Your task to perform on an android device: Search for "usb-c to usb-b" on bestbuy.com, select the first entry, add it to the cart, then select checkout. Image 0: 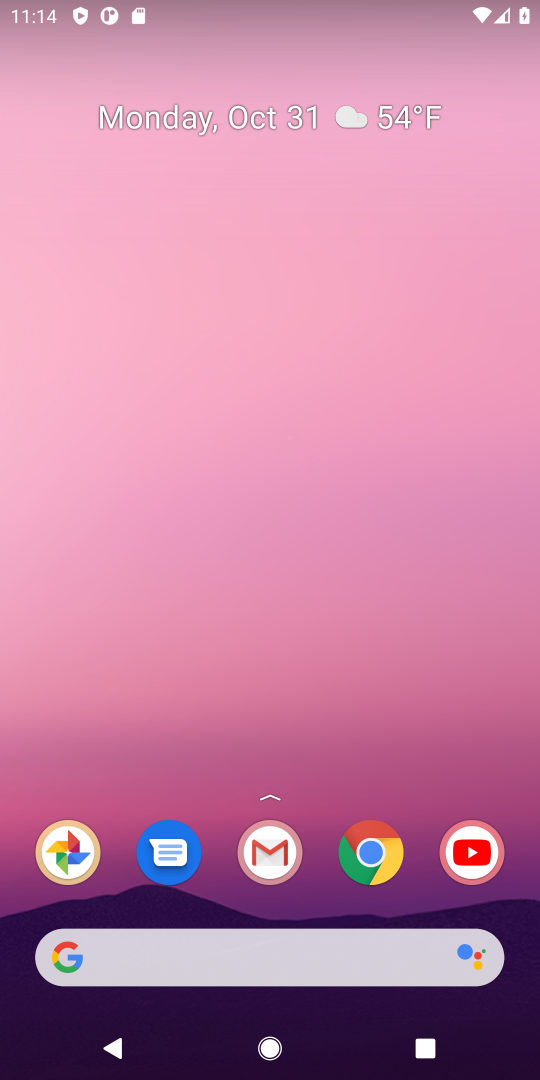
Step 0: click (375, 862)
Your task to perform on an android device: Search for "usb-c to usb-b" on bestbuy.com, select the first entry, add it to the cart, then select checkout. Image 1: 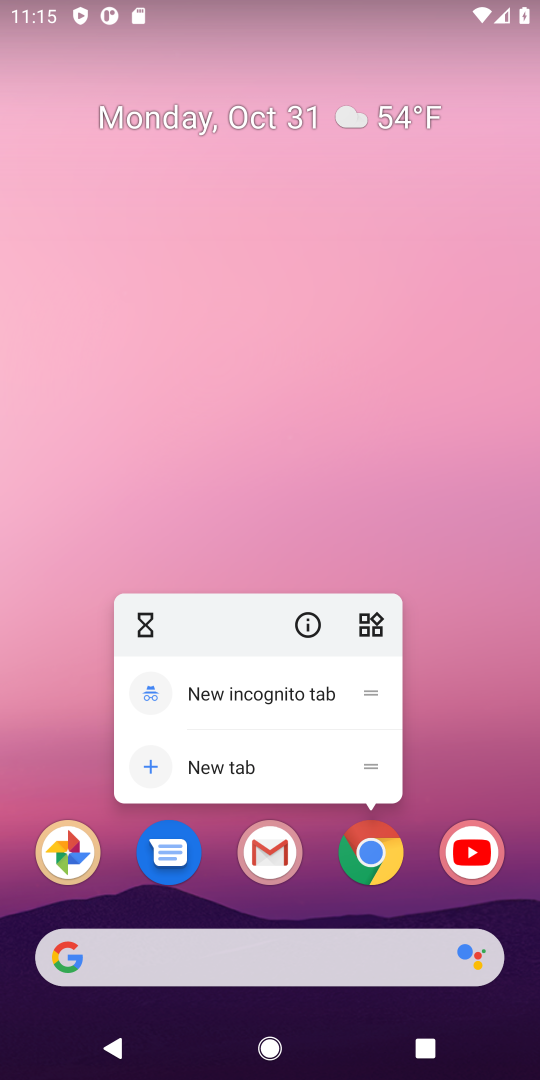
Step 1: click (367, 859)
Your task to perform on an android device: Search for "usb-c to usb-b" on bestbuy.com, select the first entry, add it to the cart, then select checkout. Image 2: 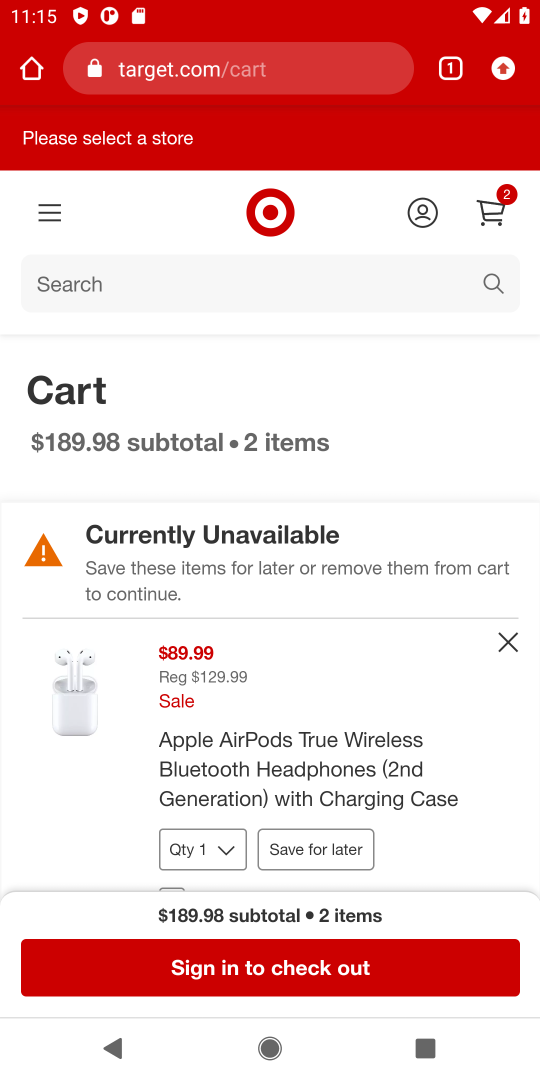
Step 2: click (253, 64)
Your task to perform on an android device: Search for "usb-c to usb-b" on bestbuy.com, select the first entry, add it to the cart, then select checkout. Image 3: 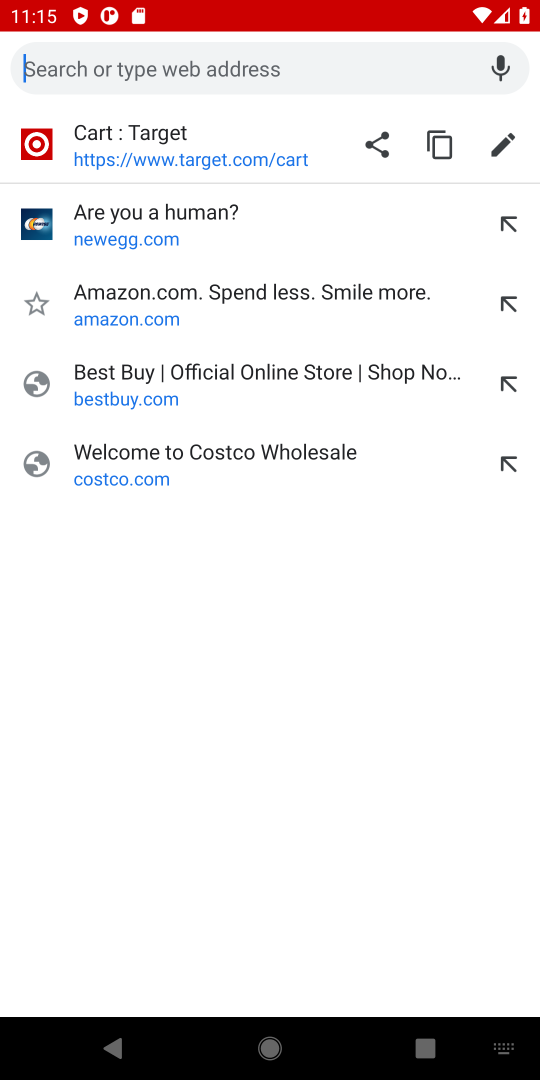
Step 3: type "bestbuy.com"
Your task to perform on an android device: Search for "usb-c to usb-b" on bestbuy.com, select the first entry, add it to the cart, then select checkout. Image 4: 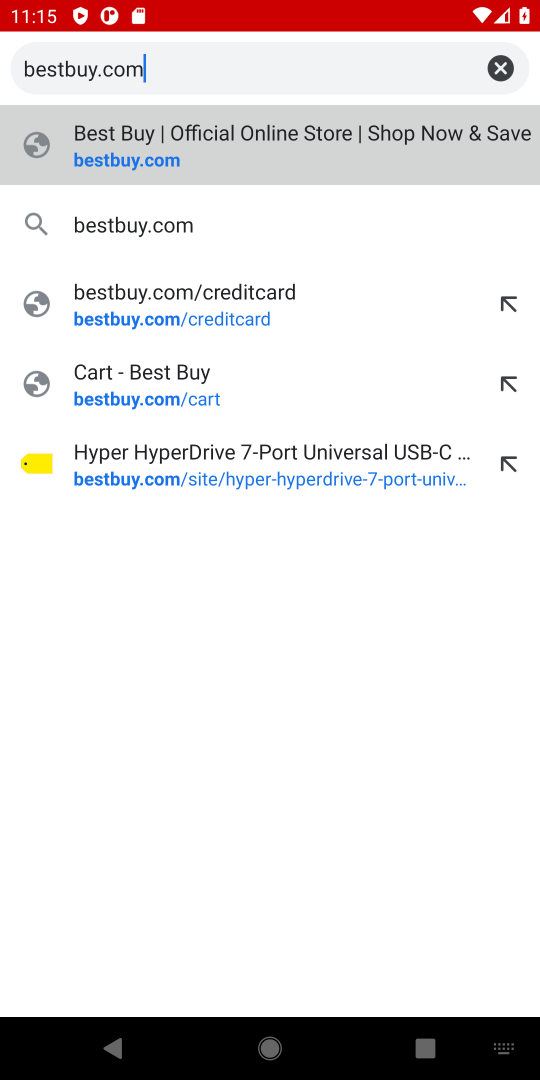
Step 4: press enter
Your task to perform on an android device: Search for "usb-c to usb-b" on bestbuy.com, select the first entry, add it to the cart, then select checkout. Image 5: 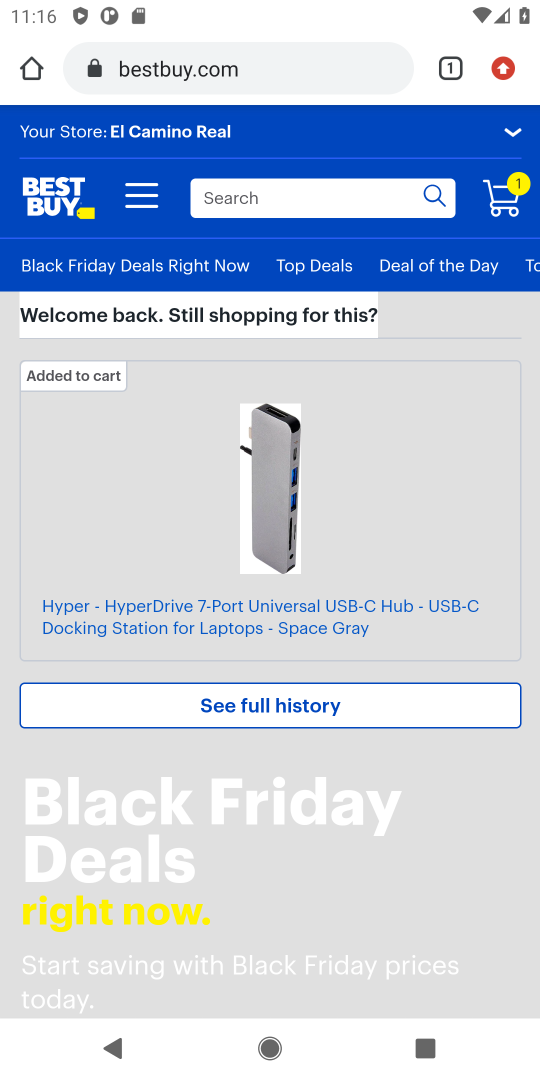
Step 5: click (296, 202)
Your task to perform on an android device: Search for "usb-c to usb-b" on bestbuy.com, select the first entry, add it to the cart, then select checkout. Image 6: 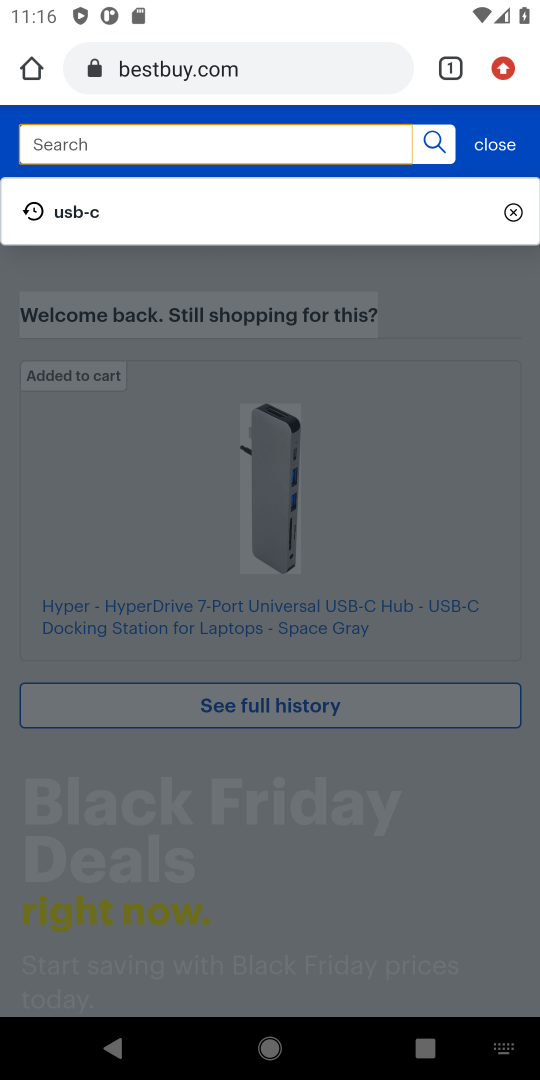
Step 6: type "usb-c to usb-b"
Your task to perform on an android device: Search for "usb-c to usb-b" on bestbuy.com, select the first entry, add it to the cart, then select checkout. Image 7: 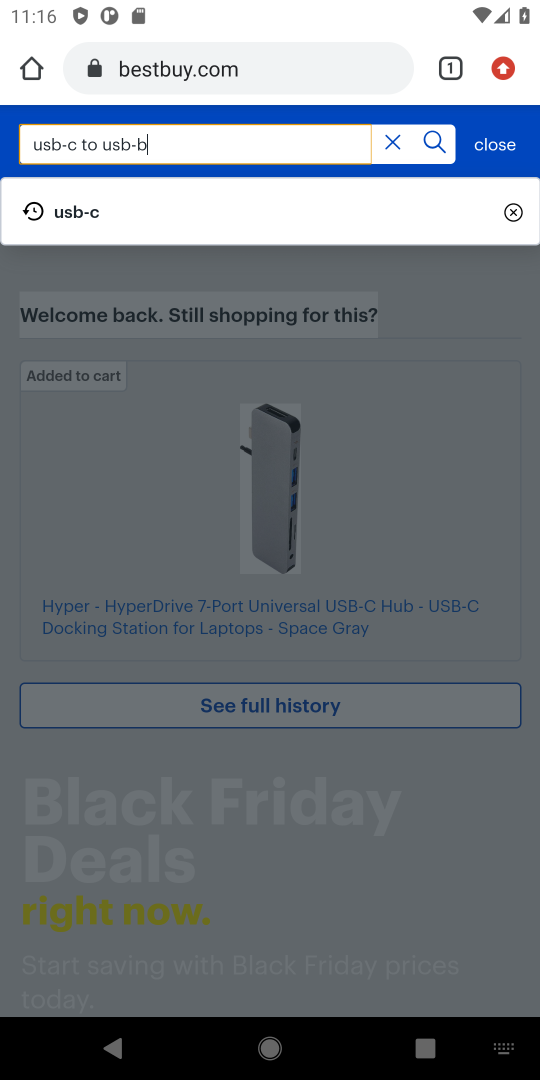
Step 7: type ""
Your task to perform on an android device: Search for "usb-c to usb-b" on bestbuy.com, select the first entry, add it to the cart, then select checkout. Image 8: 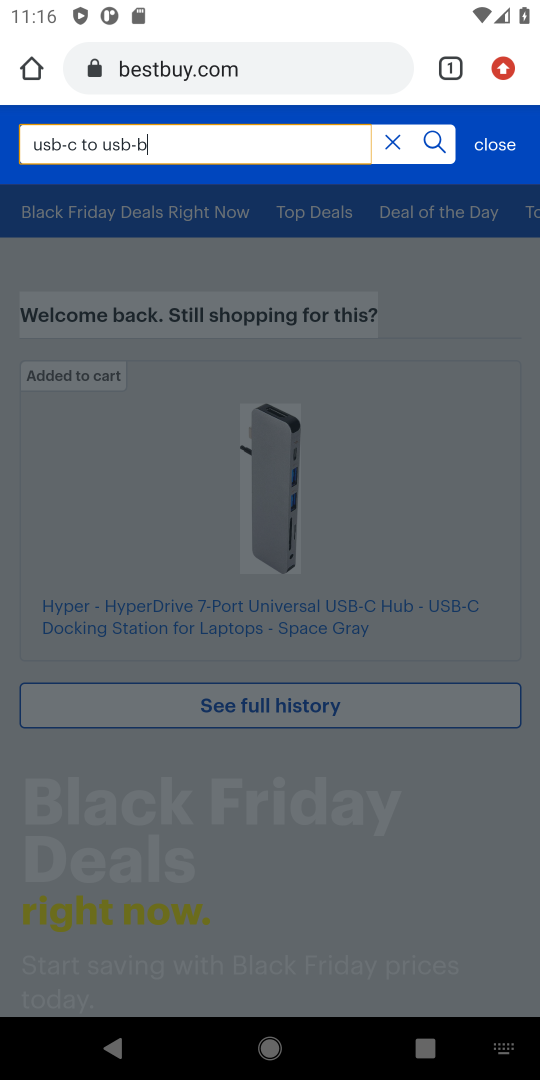
Step 8: press enter
Your task to perform on an android device: Search for "usb-c to usb-b" on bestbuy.com, select the first entry, add it to the cart, then select checkout. Image 9: 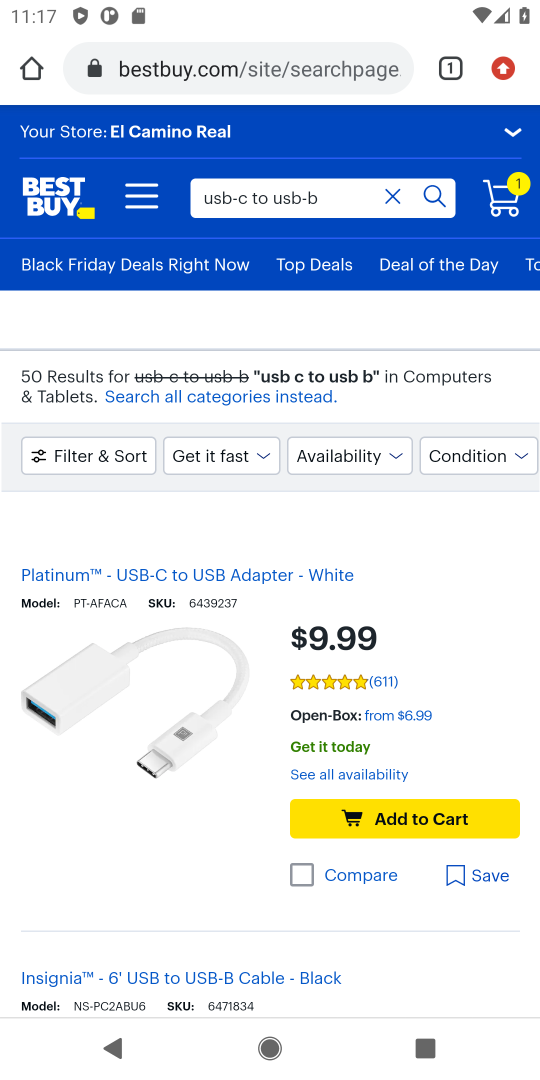
Step 9: click (435, 816)
Your task to perform on an android device: Search for "usb-c to usb-b" on bestbuy.com, select the first entry, add it to the cart, then select checkout. Image 10: 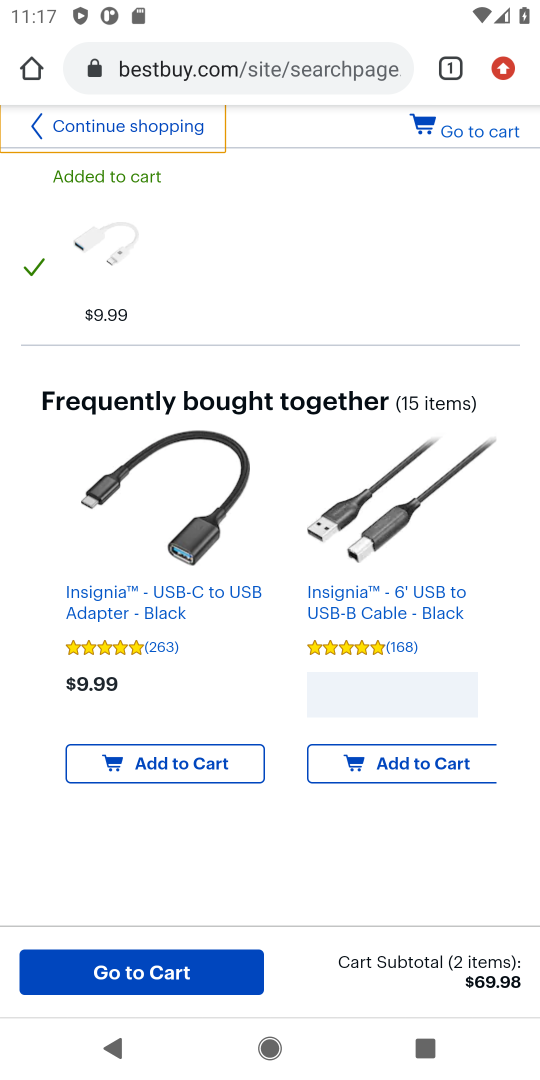
Step 10: click (190, 966)
Your task to perform on an android device: Search for "usb-c to usb-b" on bestbuy.com, select the first entry, add it to the cart, then select checkout. Image 11: 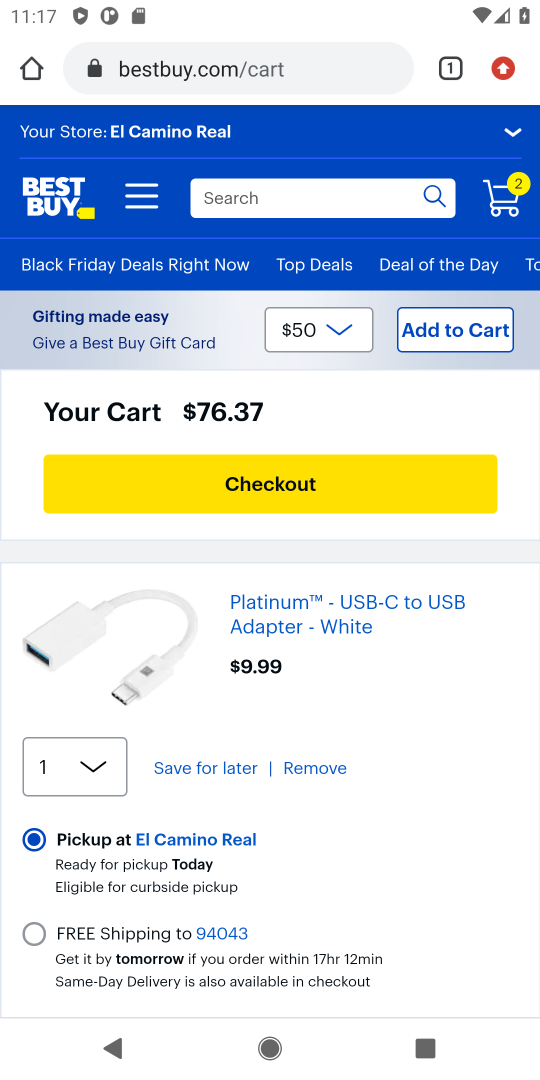
Step 11: click (308, 478)
Your task to perform on an android device: Search for "usb-c to usb-b" on bestbuy.com, select the first entry, add it to the cart, then select checkout. Image 12: 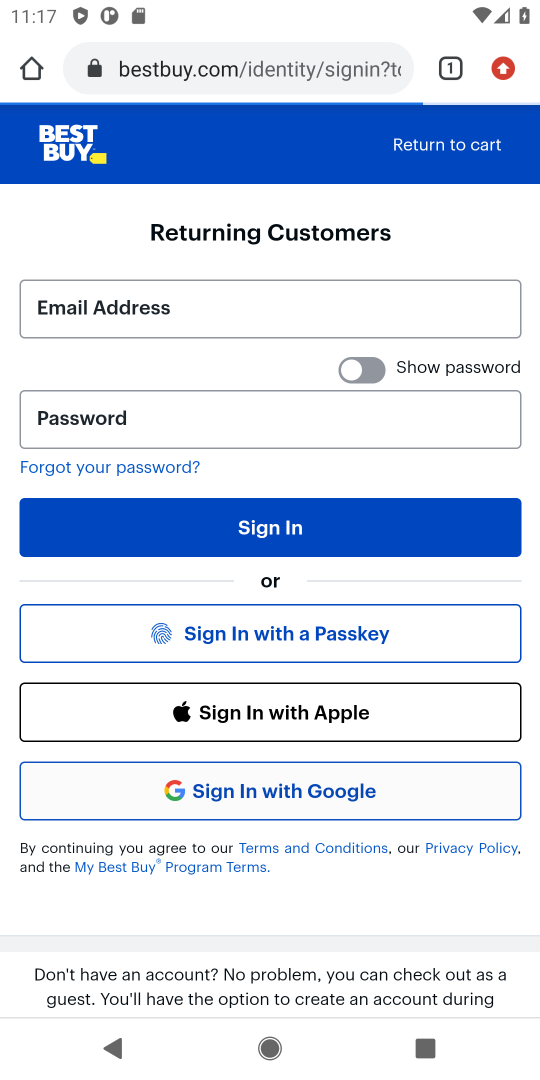
Step 12: task complete